Your task to perform on an android device: What's the news in Brunei? Image 0: 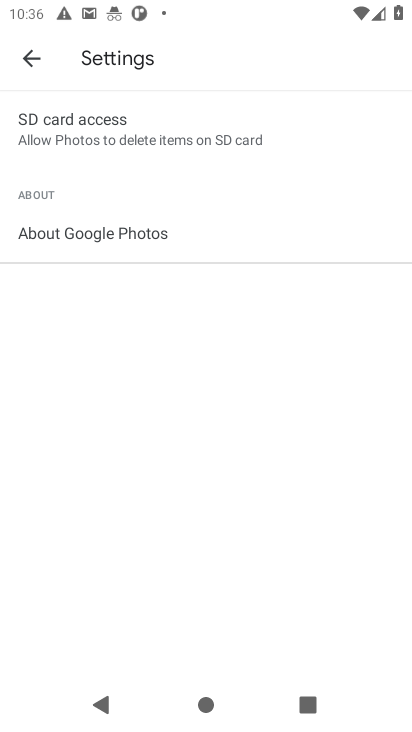
Step 0: press home button
Your task to perform on an android device: What's the news in Brunei? Image 1: 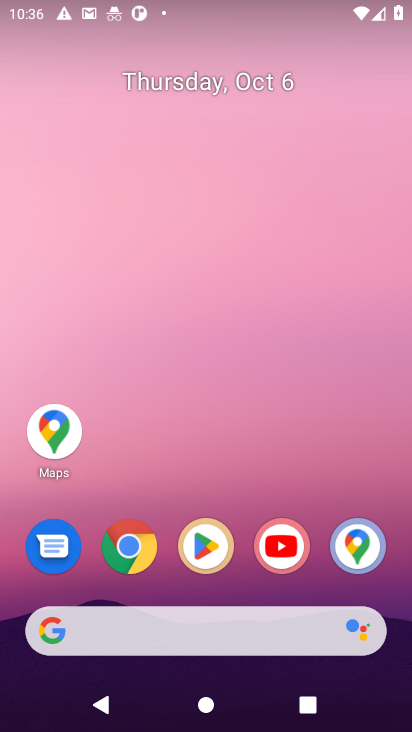
Step 1: click (125, 545)
Your task to perform on an android device: What's the news in Brunei? Image 2: 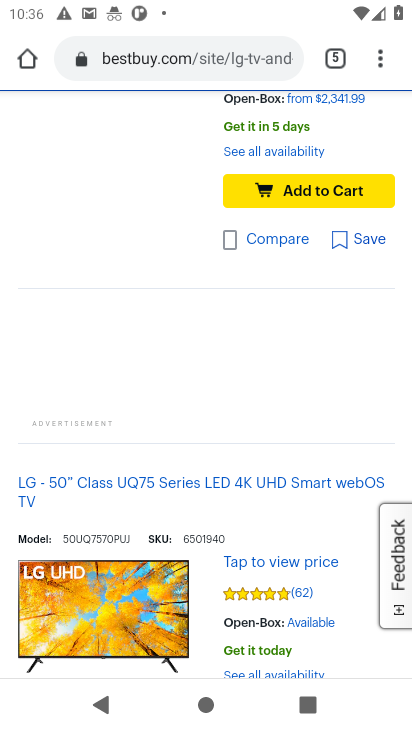
Step 2: click (154, 45)
Your task to perform on an android device: What's the news in Brunei? Image 3: 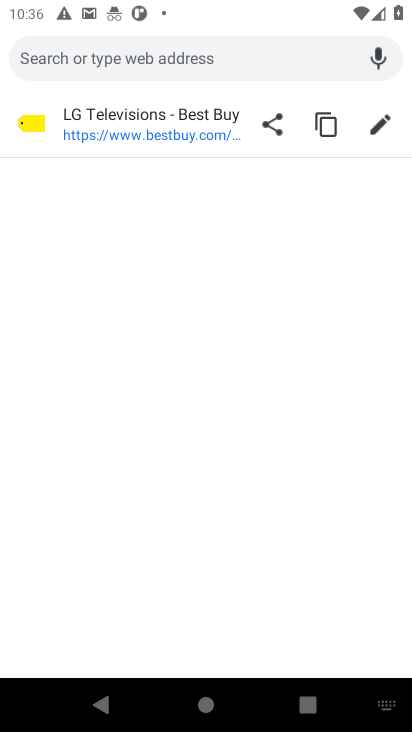
Step 3: type "news in Brunei?"
Your task to perform on an android device: What's the news in Brunei? Image 4: 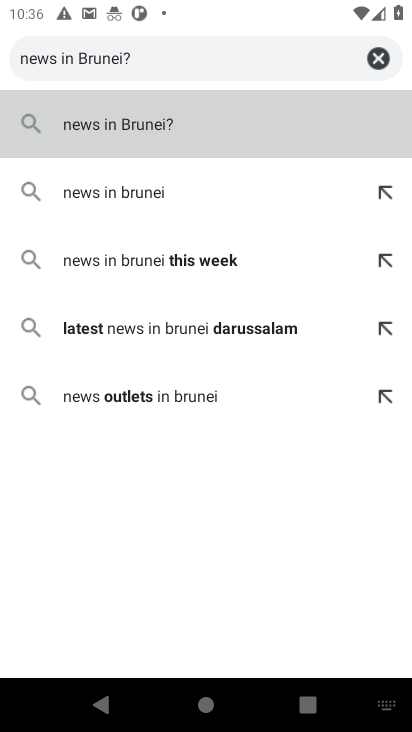
Step 4: click (112, 117)
Your task to perform on an android device: What's the news in Brunei? Image 5: 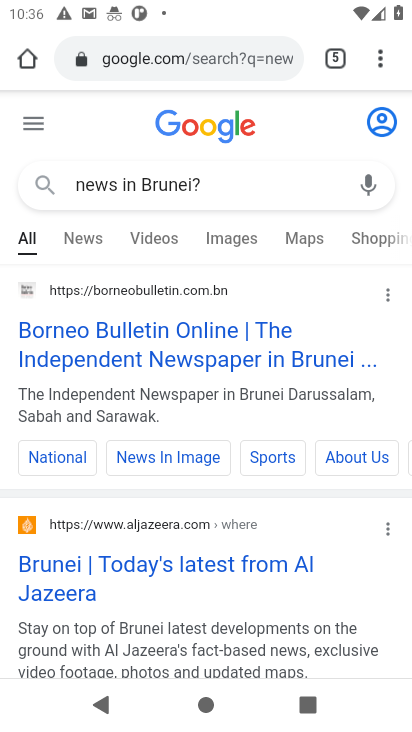
Step 5: click (82, 570)
Your task to perform on an android device: What's the news in Brunei? Image 6: 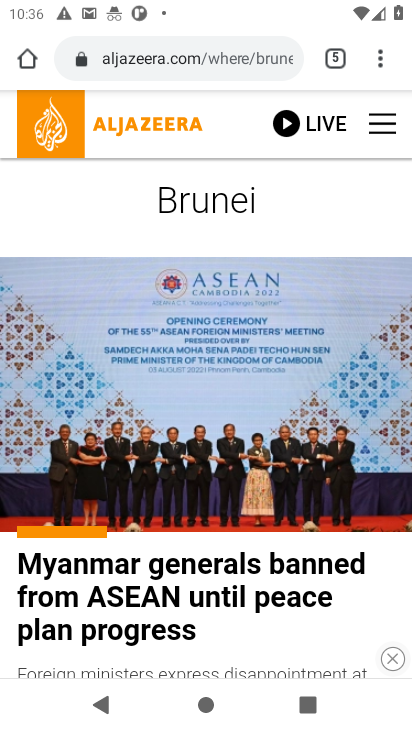
Step 6: drag from (207, 549) to (225, 267)
Your task to perform on an android device: What's the news in Brunei? Image 7: 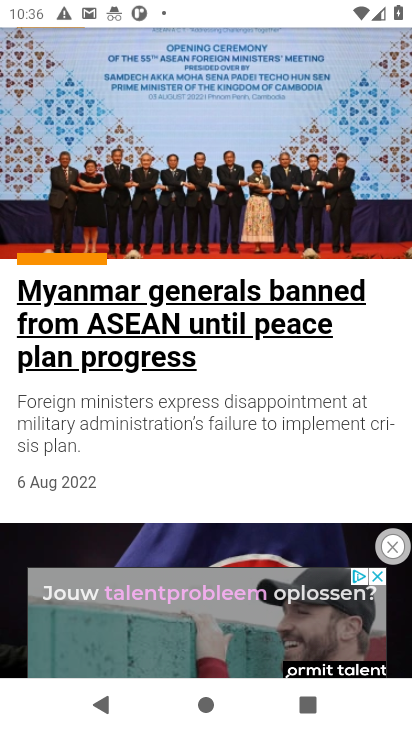
Step 7: drag from (232, 429) to (247, 293)
Your task to perform on an android device: What's the news in Brunei? Image 8: 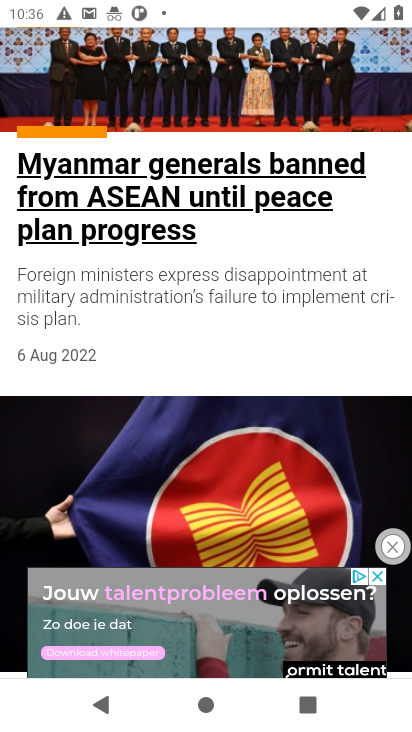
Step 8: click (378, 574)
Your task to perform on an android device: What's the news in Brunei? Image 9: 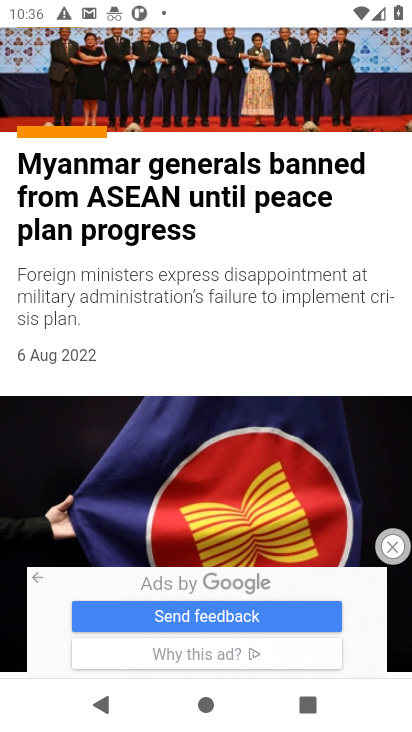
Step 9: click (391, 545)
Your task to perform on an android device: What's the news in Brunei? Image 10: 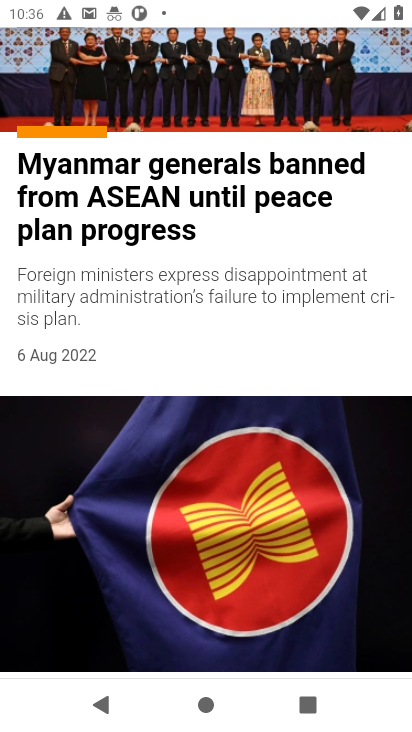
Step 10: task complete